Your task to perform on an android device: Go to Maps Image 0: 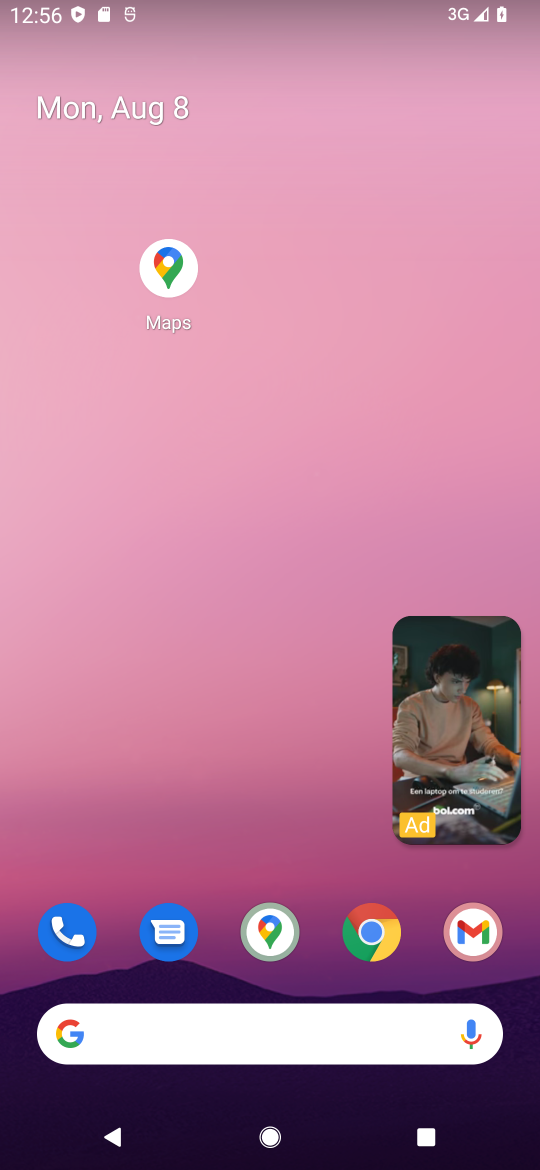
Step 0: click (145, 264)
Your task to perform on an android device: Go to Maps Image 1: 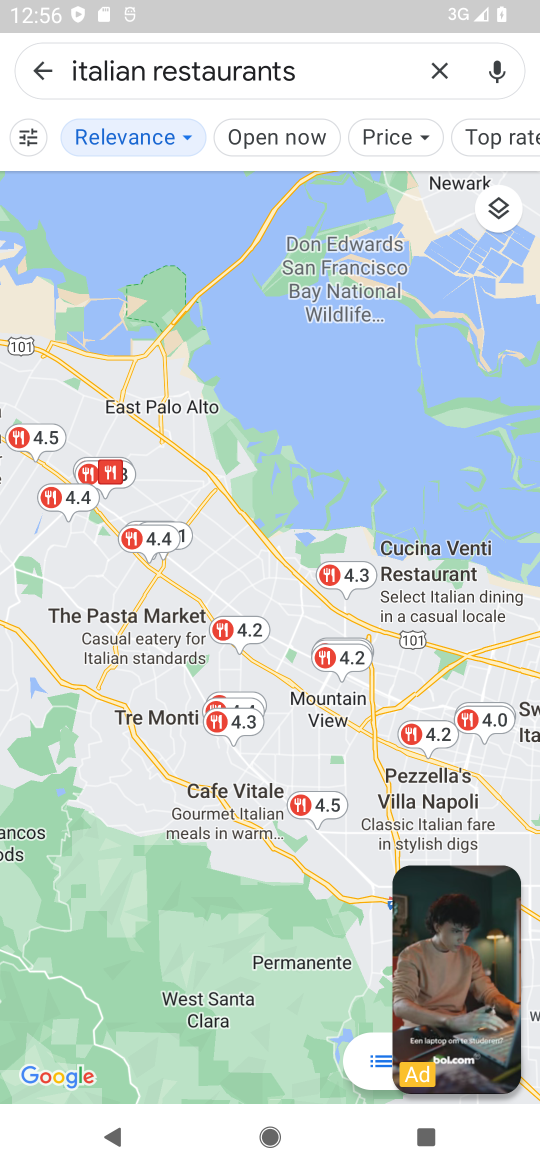
Step 1: click (289, 405)
Your task to perform on an android device: Go to Maps Image 2: 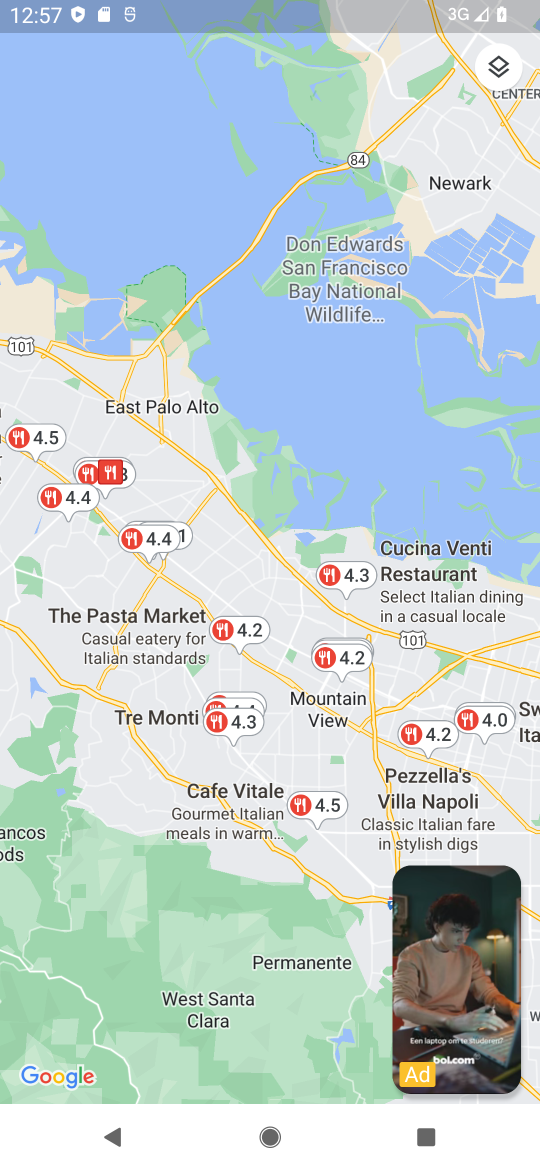
Step 2: task complete